Your task to perform on an android device: turn off sleep mode Image 0: 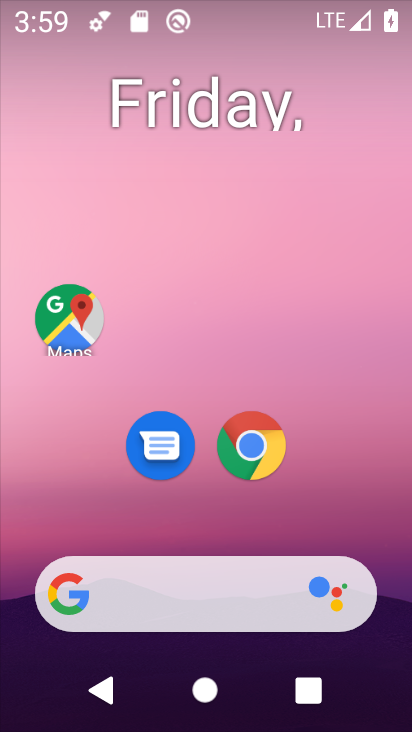
Step 0: drag from (380, 523) to (319, 213)
Your task to perform on an android device: turn off sleep mode Image 1: 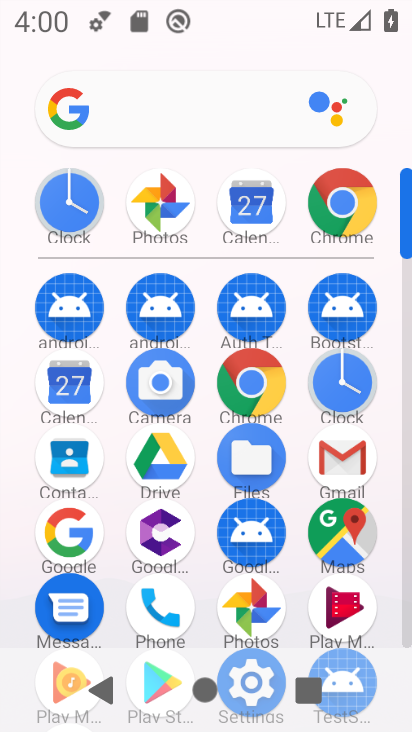
Step 1: click (406, 613)
Your task to perform on an android device: turn off sleep mode Image 2: 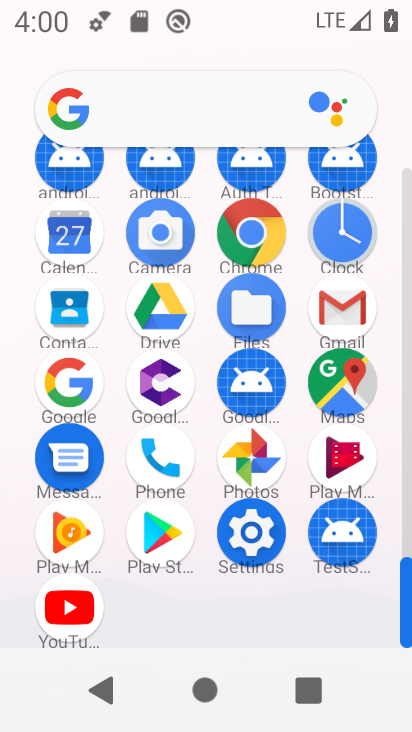
Step 2: click (259, 554)
Your task to perform on an android device: turn off sleep mode Image 3: 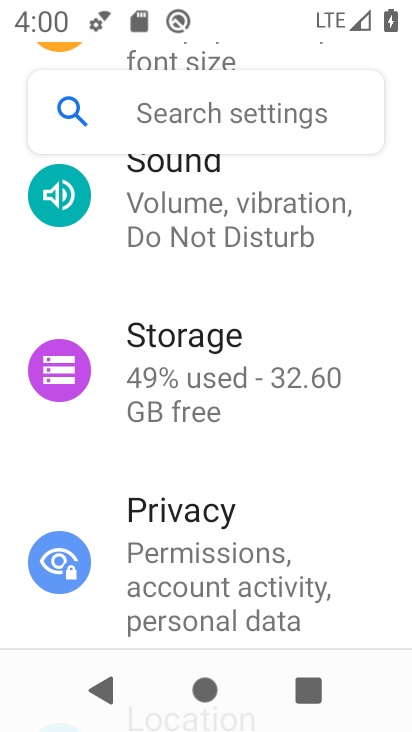
Step 3: drag from (244, 286) to (233, 631)
Your task to perform on an android device: turn off sleep mode Image 4: 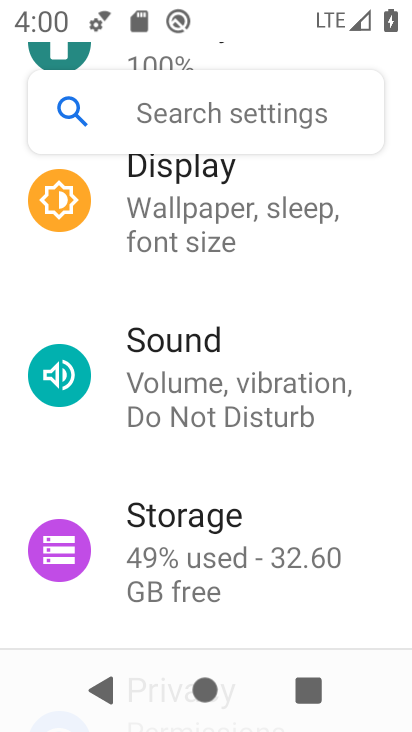
Step 4: drag from (214, 266) to (169, 614)
Your task to perform on an android device: turn off sleep mode Image 5: 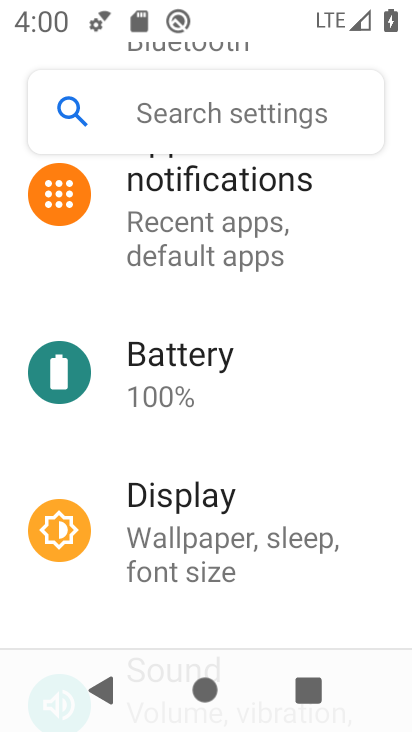
Step 5: drag from (219, 311) to (252, 701)
Your task to perform on an android device: turn off sleep mode Image 6: 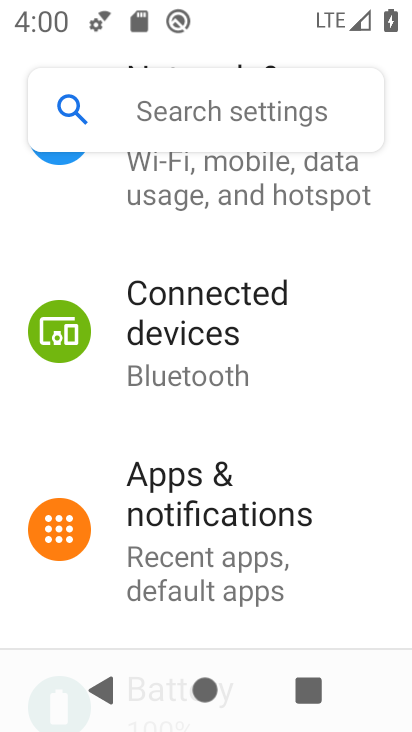
Step 6: drag from (242, 571) to (201, 229)
Your task to perform on an android device: turn off sleep mode Image 7: 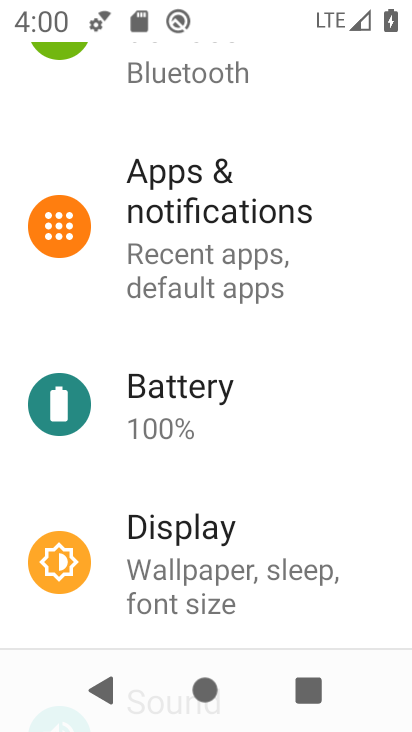
Step 7: click (210, 568)
Your task to perform on an android device: turn off sleep mode Image 8: 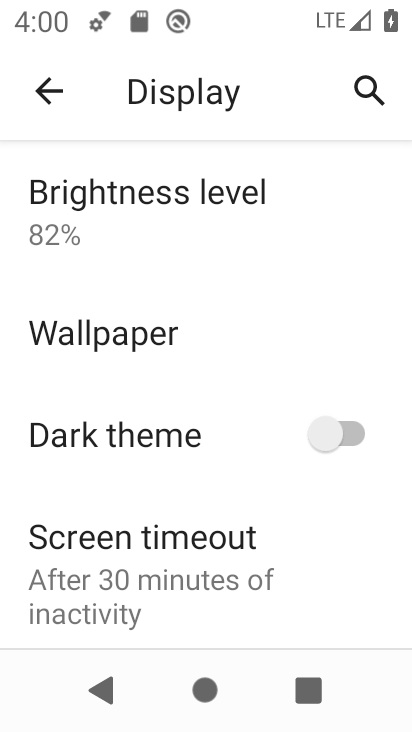
Step 8: task complete